Your task to perform on an android device: delete location history Image 0: 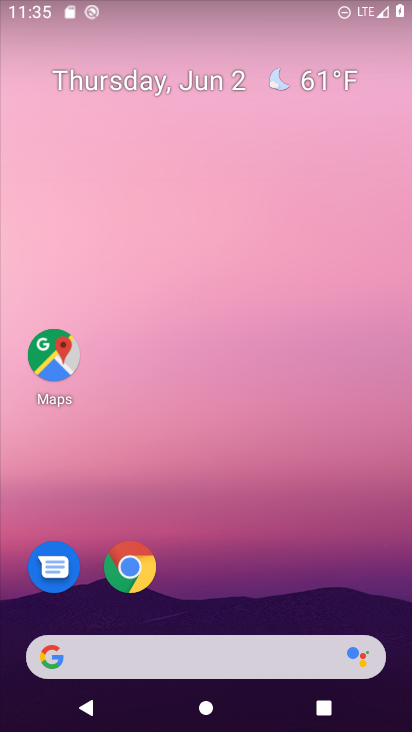
Step 0: drag from (209, 318) to (190, 188)
Your task to perform on an android device: delete location history Image 1: 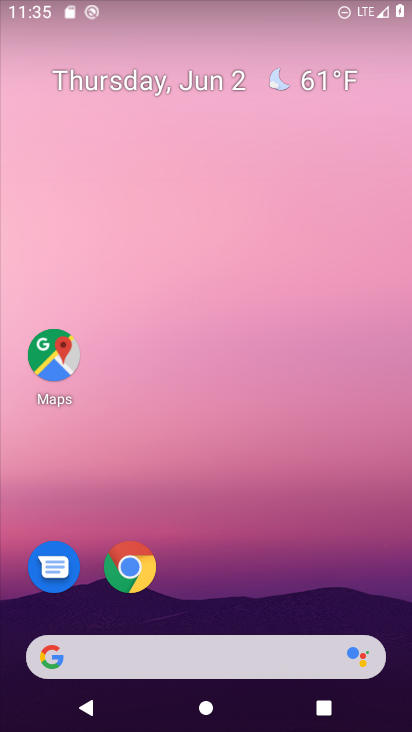
Step 1: drag from (294, 488) to (240, 83)
Your task to perform on an android device: delete location history Image 2: 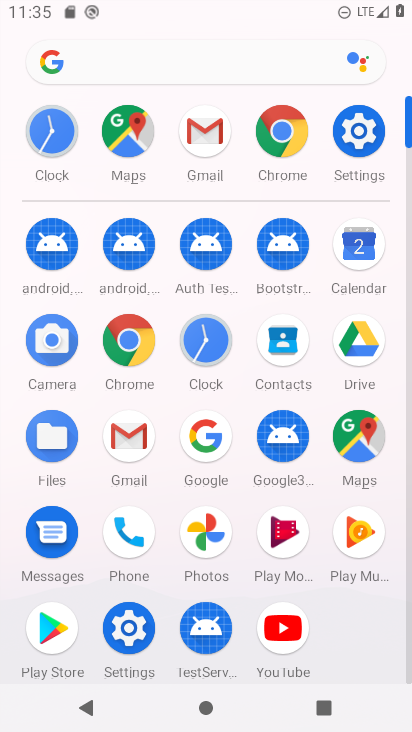
Step 2: click (112, 137)
Your task to perform on an android device: delete location history Image 3: 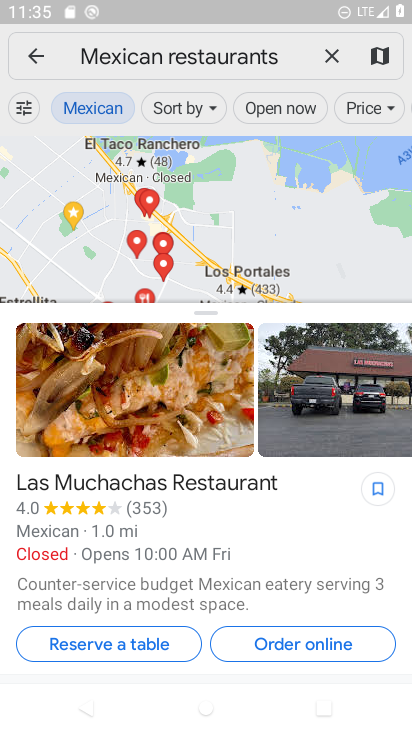
Step 3: click (24, 51)
Your task to perform on an android device: delete location history Image 4: 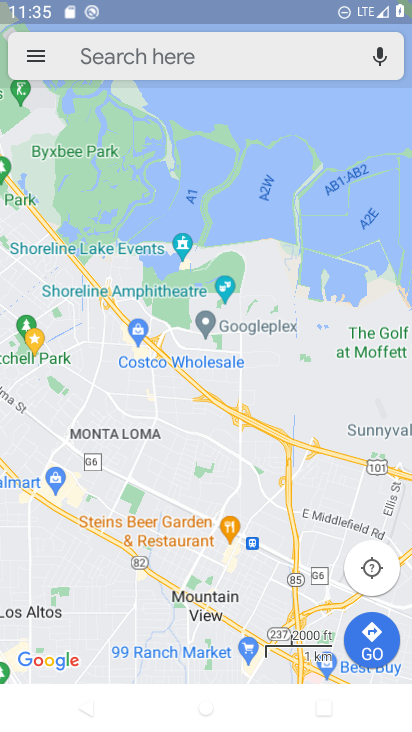
Step 4: click (26, 51)
Your task to perform on an android device: delete location history Image 5: 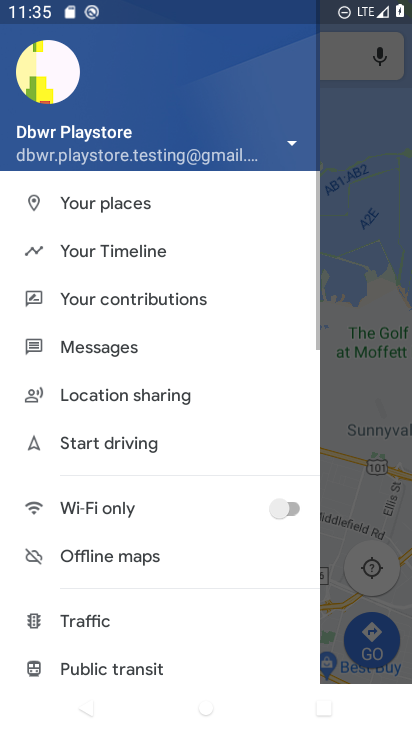
Step 5: drag from (166, 619) to (201, 122)
Your task to perform on an android device: delete location history Image 6: 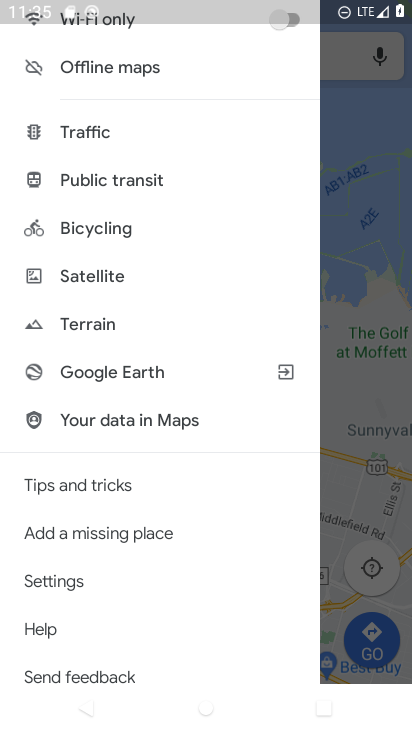
Step 6: drag from (98, 611) to (173, 343)
Your task to perform on an android device: delete location history Image 7: 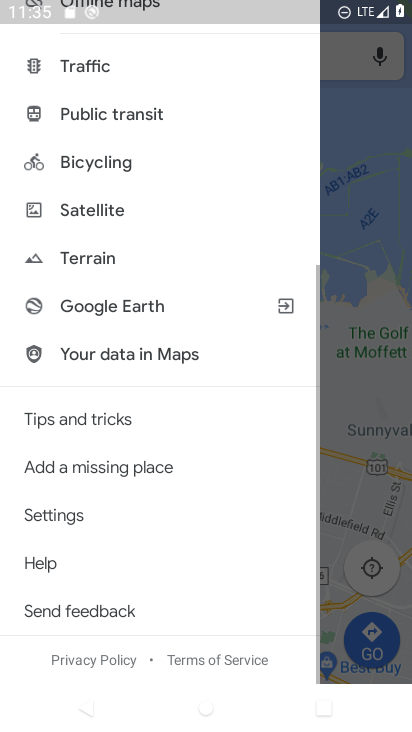
Step 7: click (53, 518)
Your task to perform on an android device: delete location history Image 8: 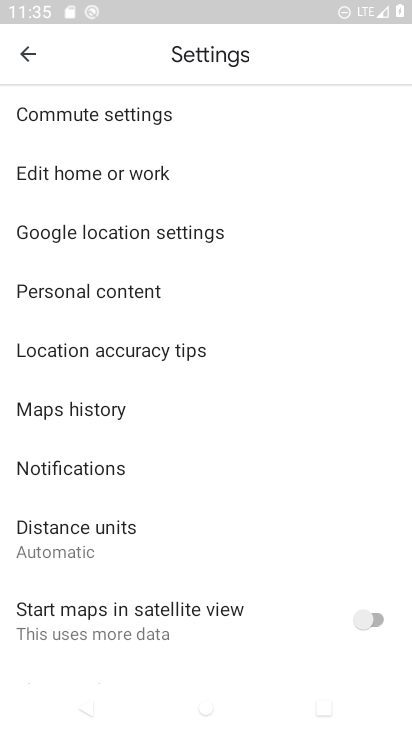
Step 8: click (102, 413)
Your task to perform on an android device: delete location history Image 9: 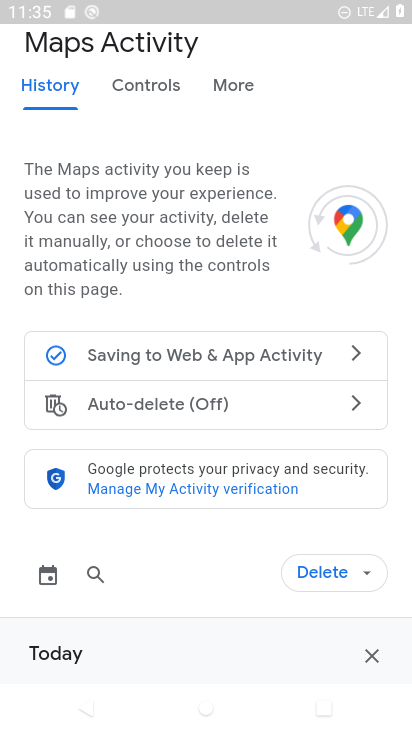
Step 9: click (363, 573)
Your task to perform on an android device: delete location history Image 10: 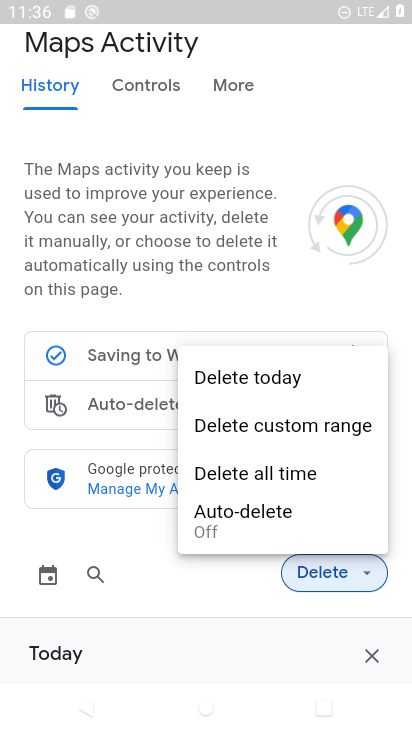
Step 10: drag from (368, 567) to (275, 471)
Your task to perform on an android device: delete location history Image 11: 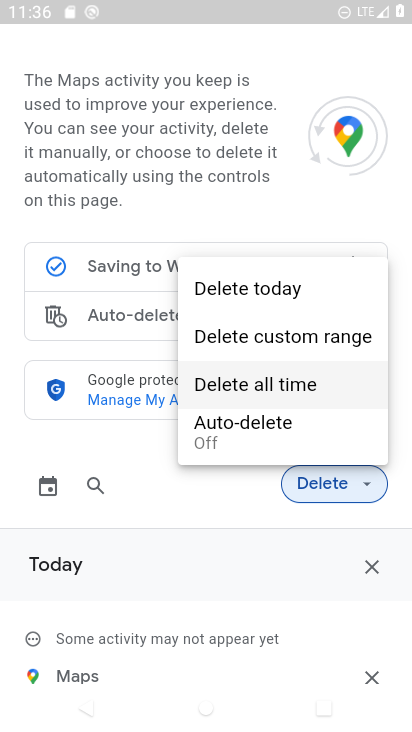
Step 11: click (264, 397)
Your task to perform on an android device: delete location history Image 12: 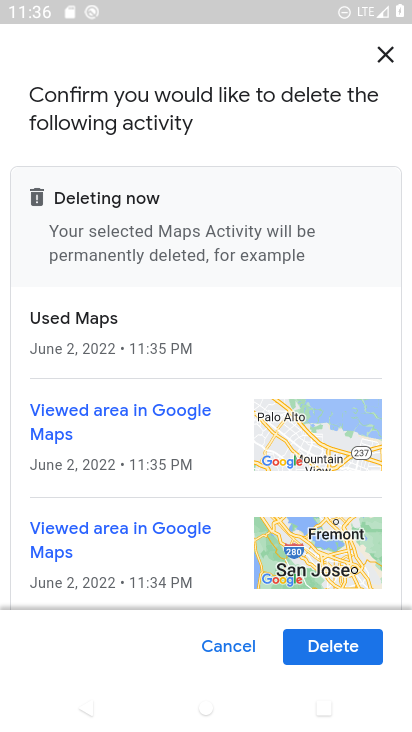
Step 12: click (357, 651)
Your task to perform on an android device: delete location history Image 13: 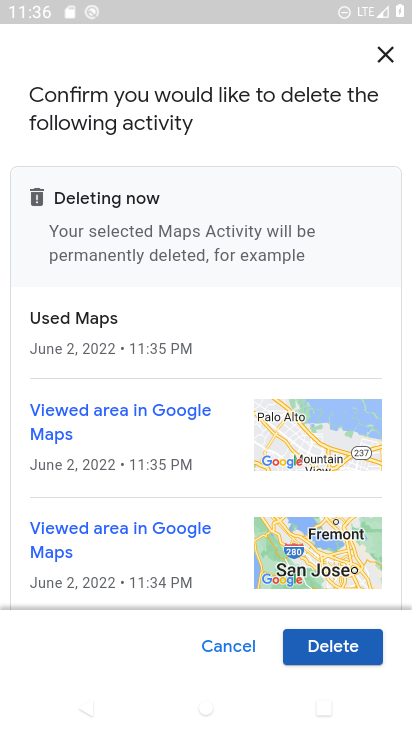
Step 13: click (353, 647)
Your task to perform on an android device: delete location history Image 14: 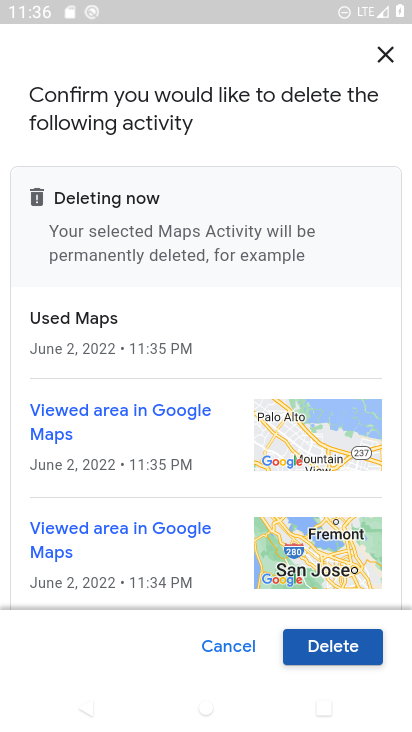
Step 14: click (348, 640)
Your task to perform on an android device: delete location history Image 15: 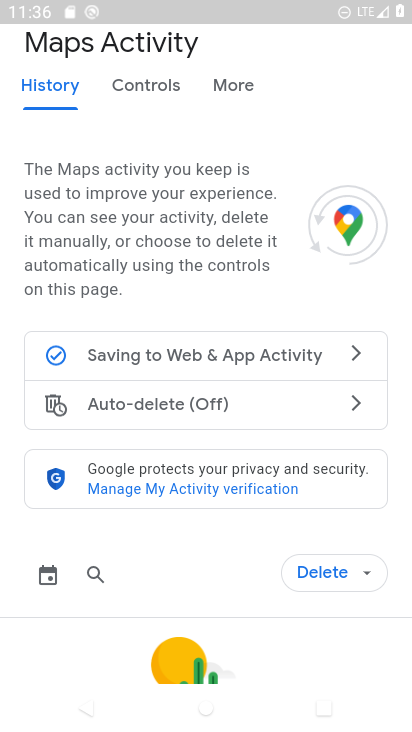
Step 15: task complete